Your task to perform on an android device: allow cookies in the chrome app Image 0: 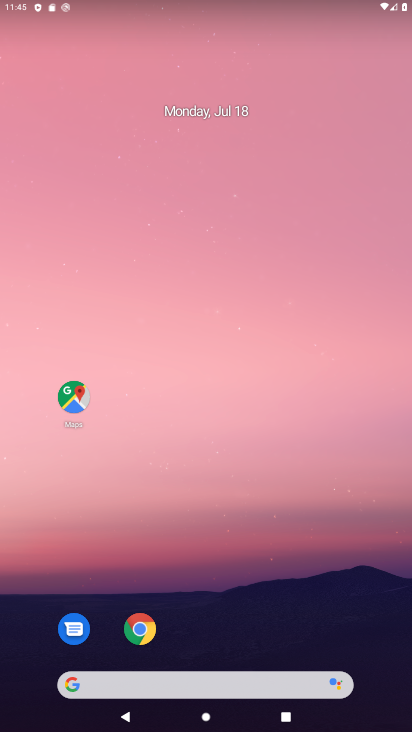
Step 0: click (151, 630)
Your task to perform on an android device: allow cookies in the chrome app Image 1: 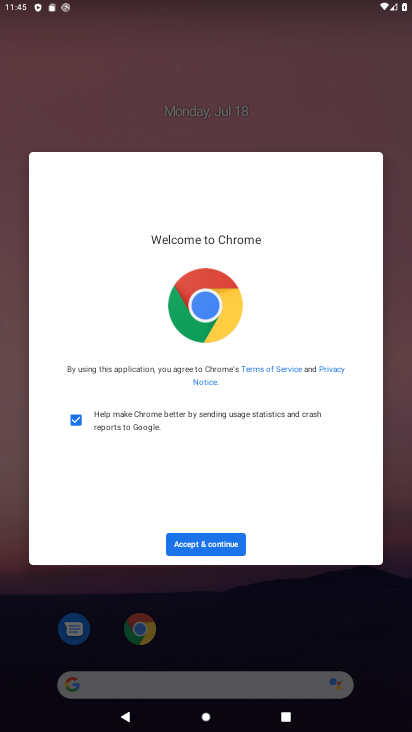
Step 1: click (233, 540)
Your task to perform on an android device: allow cookies in the chrome app Image 2: 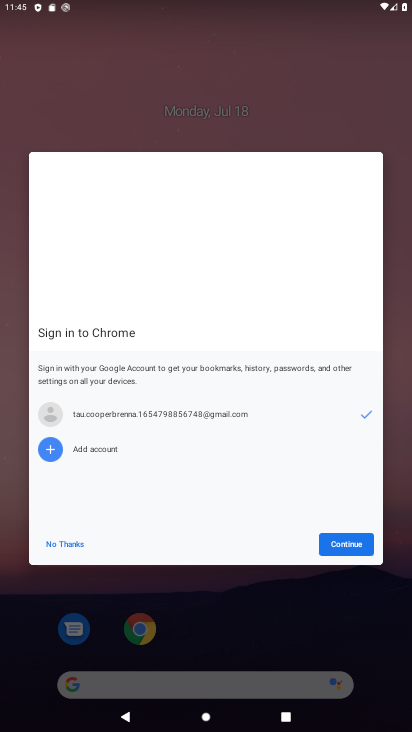
Step 2: click (331, 548)
Your task to perform on an android device: allow cookies in the chrome app Image 3: 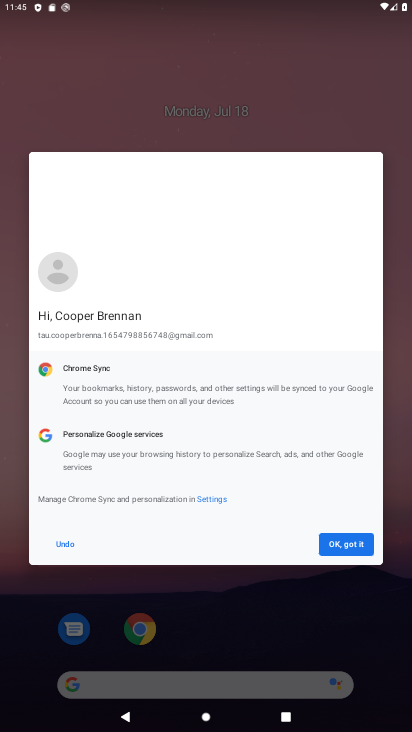
Step 3: click (331, 548)
Your task to perform on an android device: allow cookies in the chrome app Image 4: 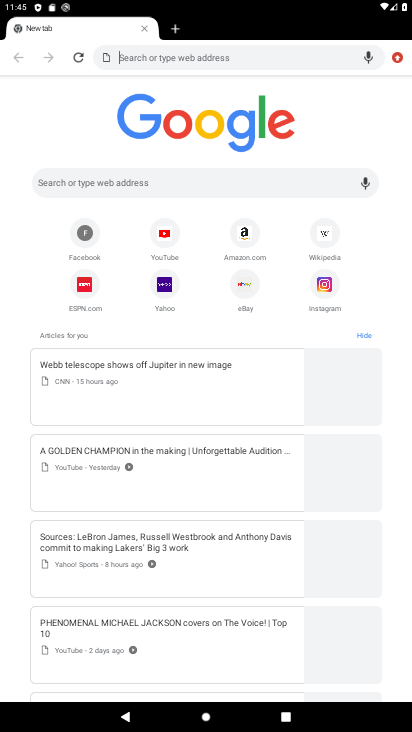
Step 4: click (399, 58)
Your task to perform on an android device: allow cookies in the chrome app Image 5: 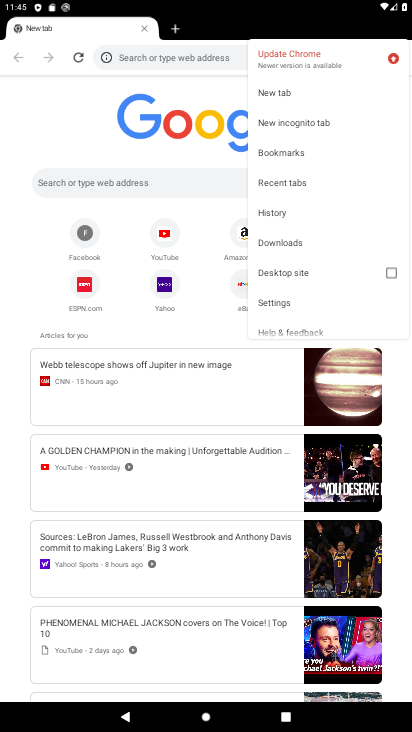
Step 5: click (297, 302)
Your task to perform on an android device: allow cookies in the chrome app Image 6: 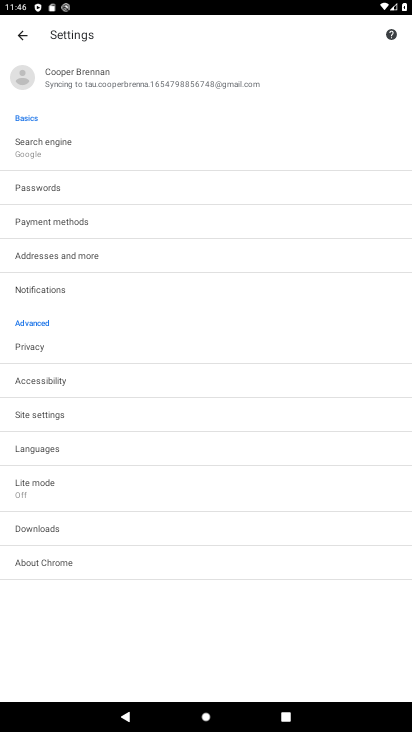
Step 6: click (86, 415)
Your task to perform on an android device: allow cookies in the chrome app Image 7: 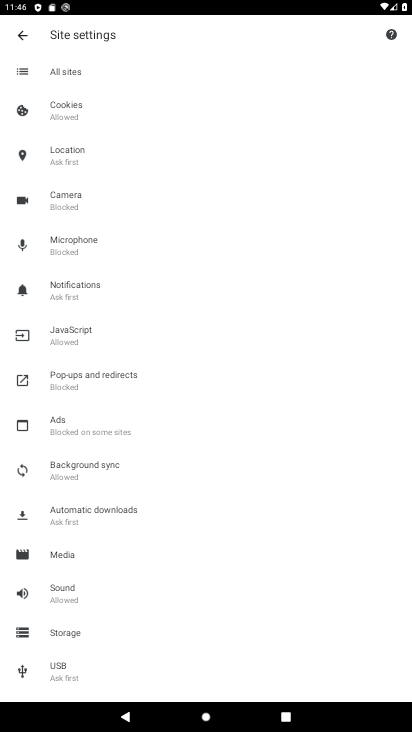
Step 7: click (128, 117)
Your task to perform on an android device: allow cookies in the chrome app Image 8: 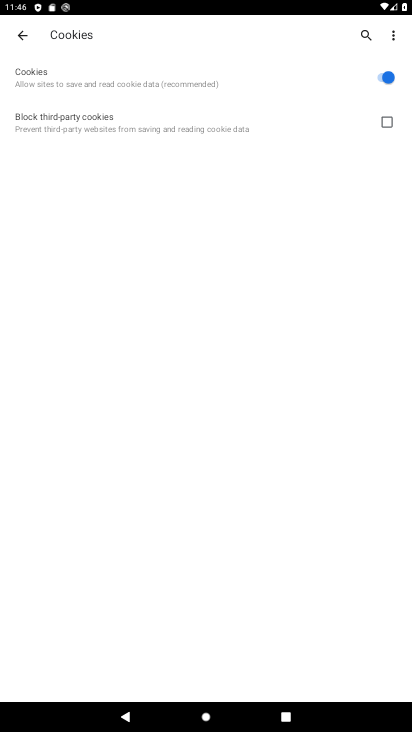
Step 8: task complete